Your task to perform on an android device: When is my next meeting? Image 0: 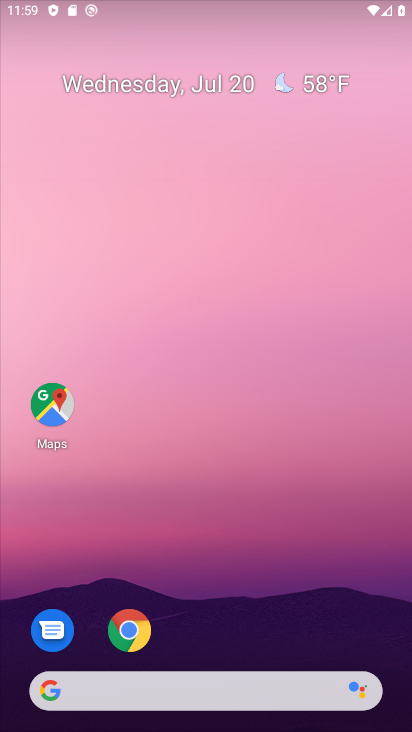
Step 0: drag from (290, 692) to (257, 131)
Your task to perform on an android device: When is my next meeting? Image 1: 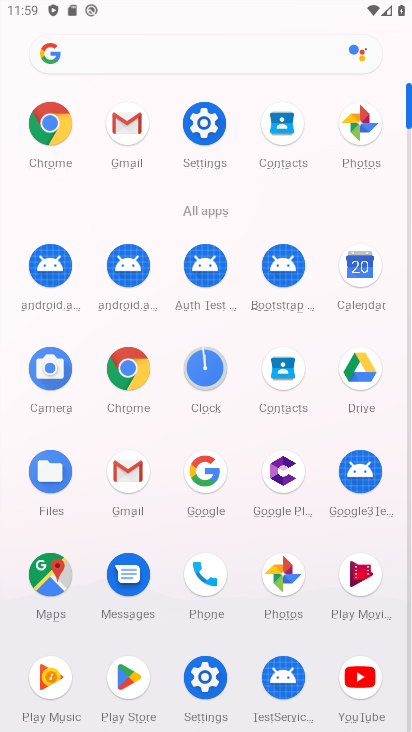
Step 1: click (364, 255)
Your task to perform on an android device: When is my next meeting? Image 2: 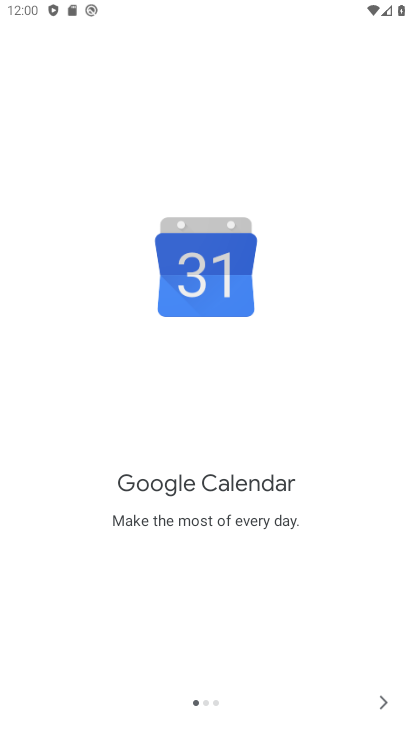
Step 2: click (379, 714)
Your task to perform on an android device: When is my next meeting? Image 3: 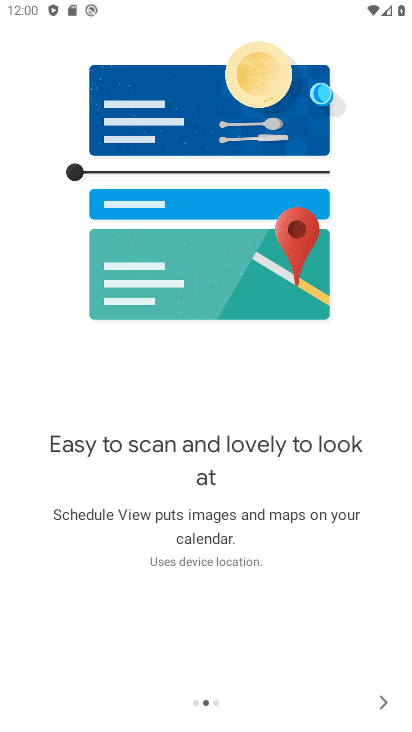
Step 3: click (380, 711)
Your task to perform on an android device: When is my next meeting? Image 4: 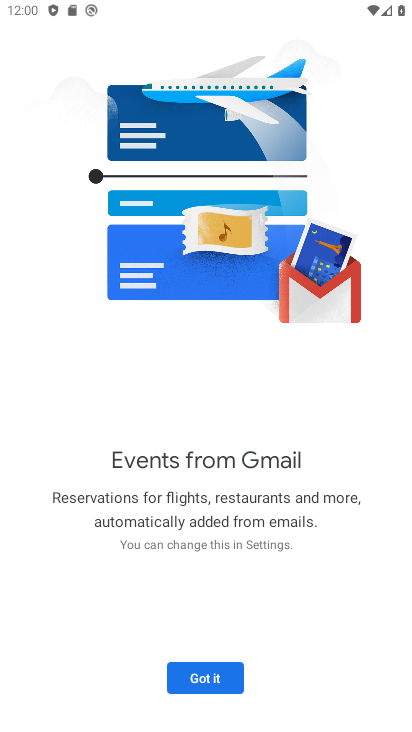
Step 4: click (222, 682)
Your task to perform on an android device: When is my next meeting? Image 5: 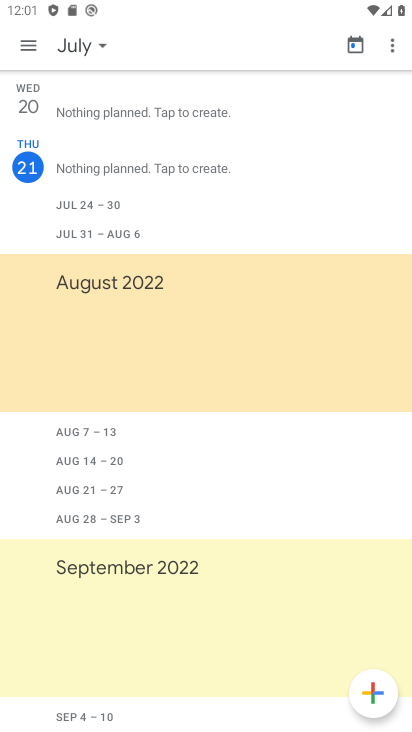
Step 5: click (28, 44)
Your task to perform on an android device: When is my next meeting? Image 6: 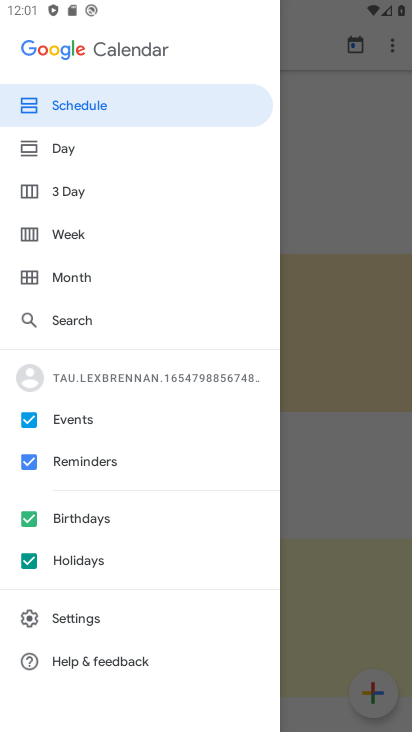
Step 6: click (89, 101)
Your task to perform on an android device: When is my next meeting? Image 7: 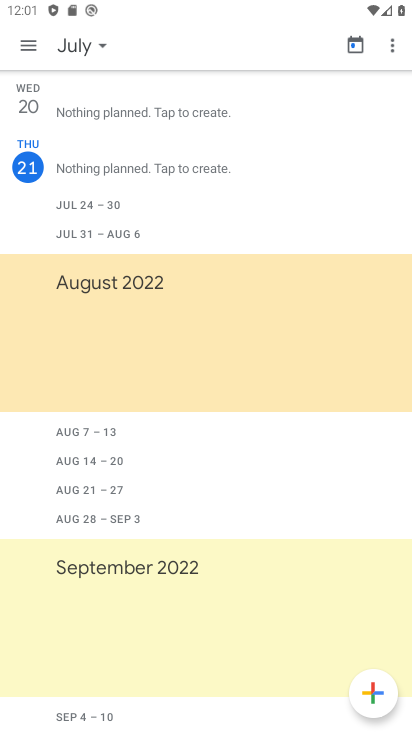
Step 7: task complete